Your task to perform on an android device: open a bookmark in the chrome app Image 0: 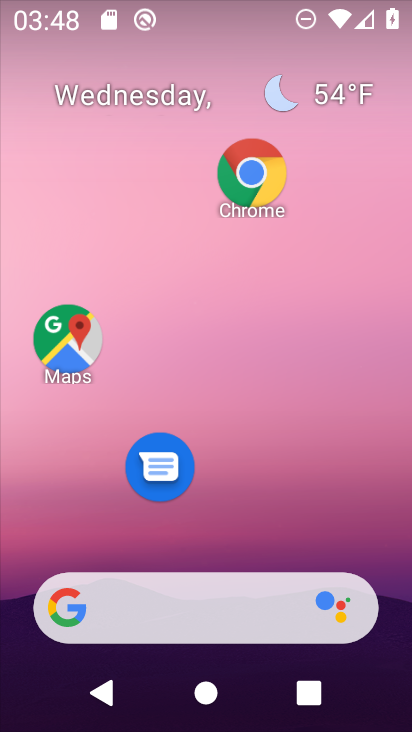
Step 0: click (261, 182)
Your task to perform on an android device: open a bookmark in the chrome app Image 1: 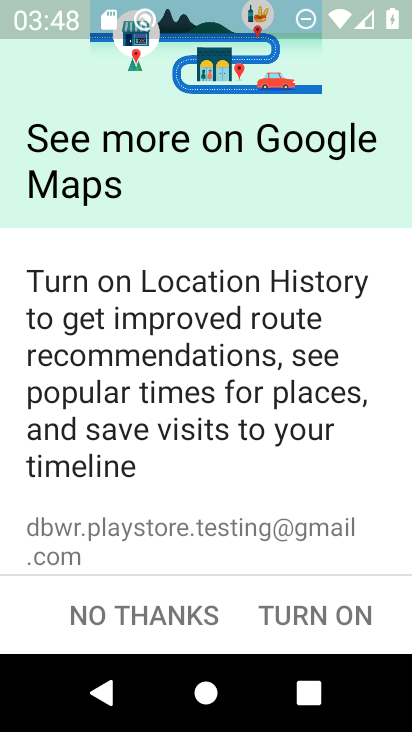
Step 1: click (156, 613)
Your task to perform on an android device: open a bookmark in the chrome app Image 2: 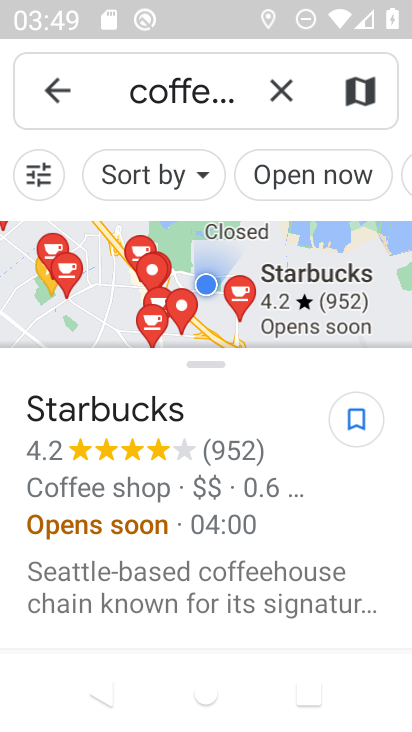
Step 2: press back button
Your task to perform on an android device: open a bookmark in the chrome app Image 3: 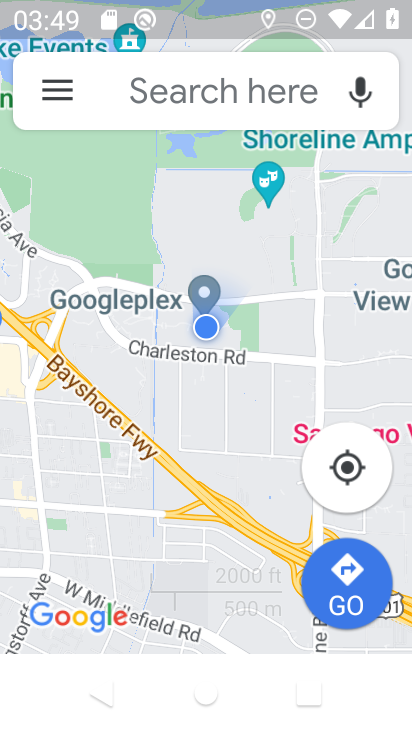
Step 3: press back button
Your task to perform on an android device: open a bookmark in the chrome app Image 4: 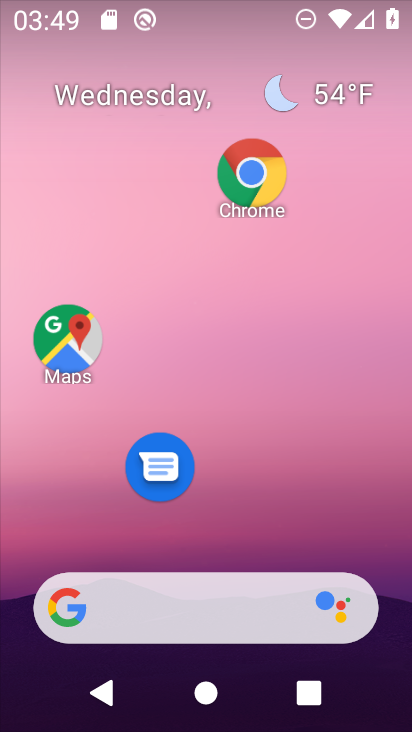
Step 4: click (255, 174)
Your task to perform on an android device: open a bookmark in the chrome app Image 5: 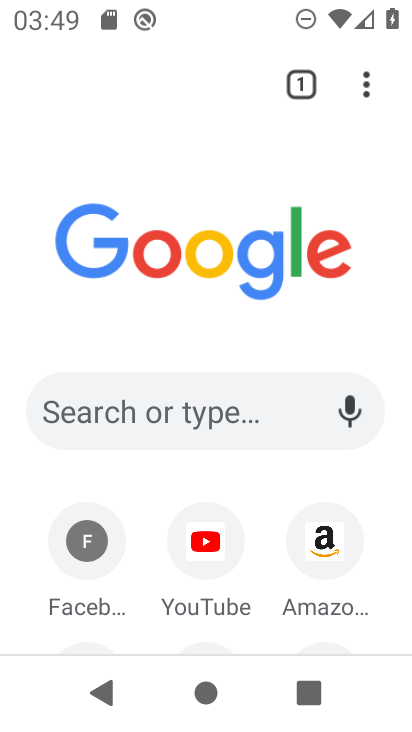
Step 5: task complete